Your task to perform on an android device: change notifications settings Image 0: 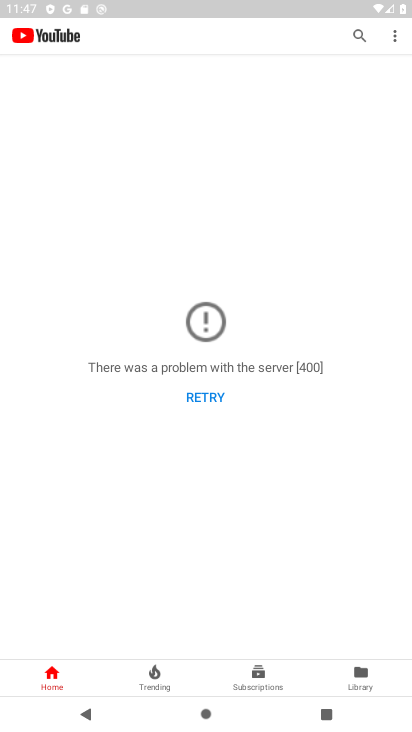
Step 0: press home button
Your task to perform on an android device: change notifications settings Image 1: 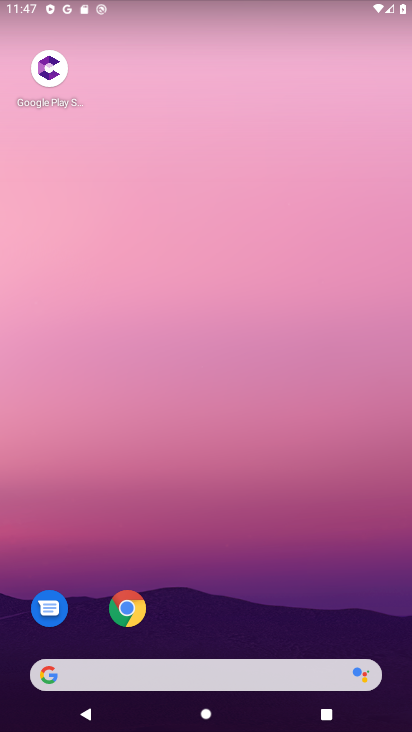
Step 1: drag from (170, 668) to (171, 114)
Your task to perform on an android device: change notifications settings Image 2: 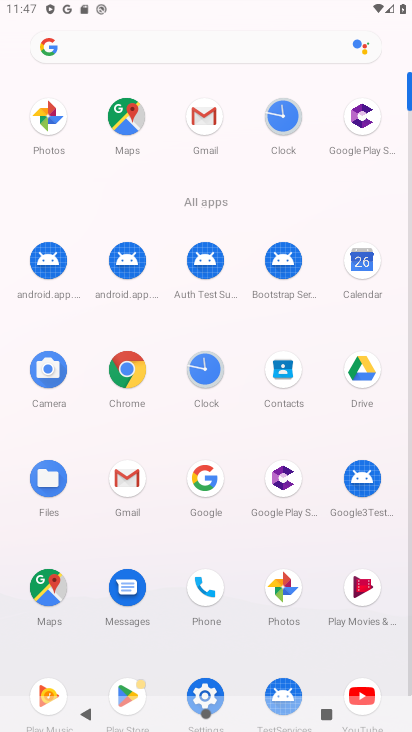
Step 2: drag from (214, 627) to (243, 377)
Your task to perform on an android device: change notifications settings Image 3: 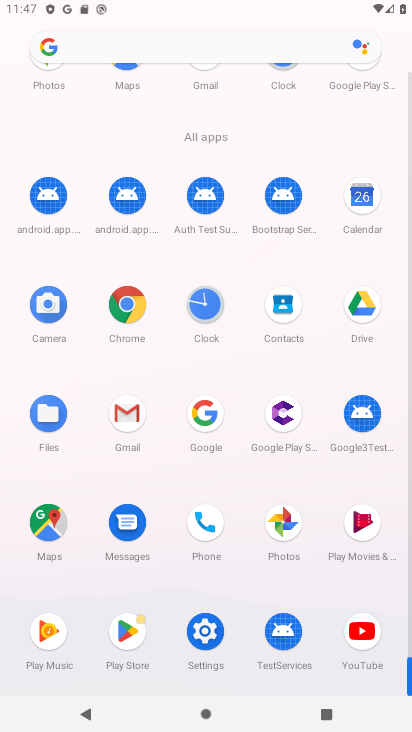
Step 3: click (208, 627)
Your task to perform on an android device: change notifications settings Image 4: 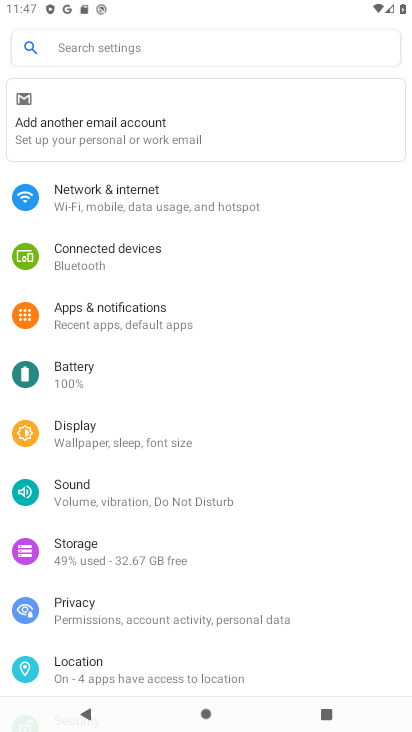
Step 4: click (136, 323)
Your task to perform on an android device: change notifications settings Image 5: 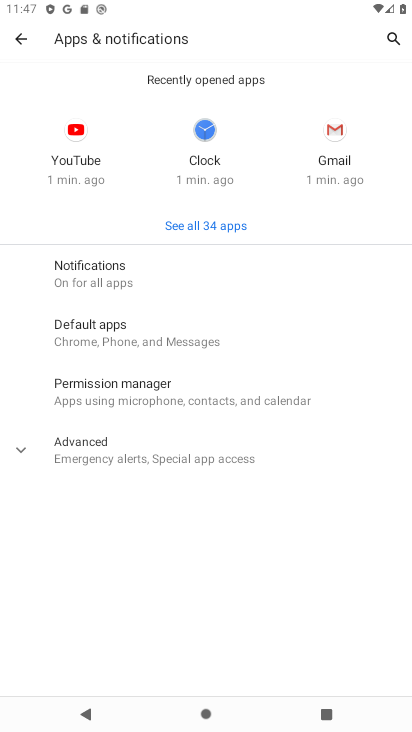
Step 5: click (115, 275)
Your task to perform on an android device: change notifications settings Image 6: 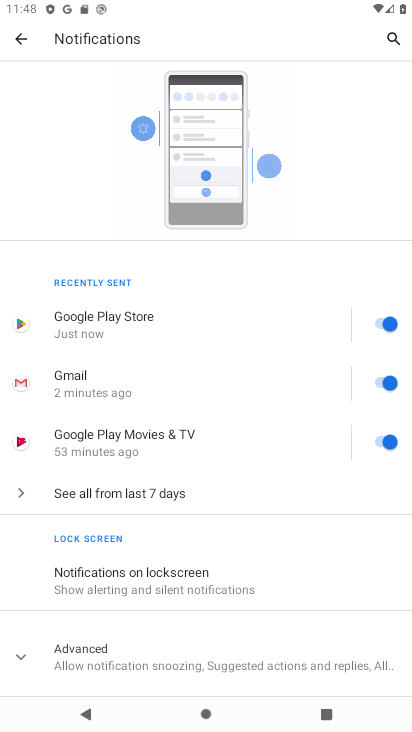
Step 6: click (101, 650)
Your task to perform on an android device: change notifications settings Image 7: 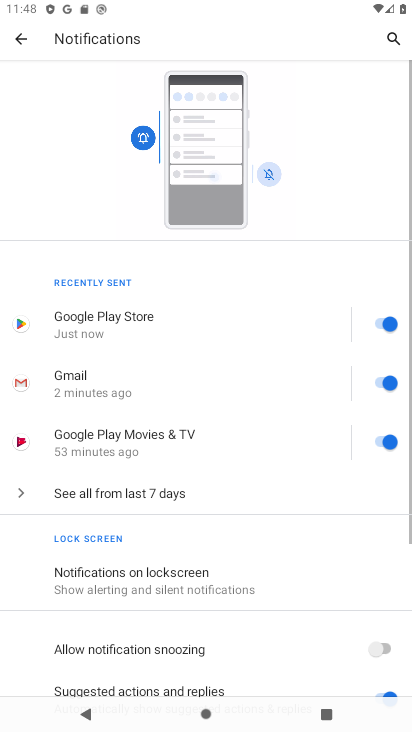
Step 7: drag from (146, 622) to (208, 378)
Your task to perform on an android device: change notifications settings Image 8: 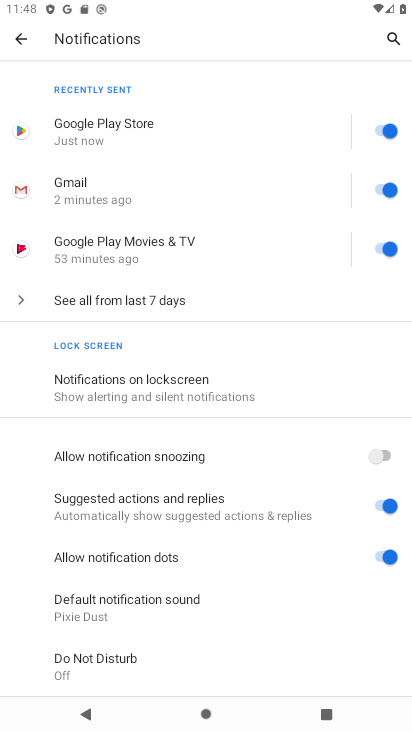
Step 8: click (379, 565)
Your task to perform on an android device: change notifications settings Image 9: 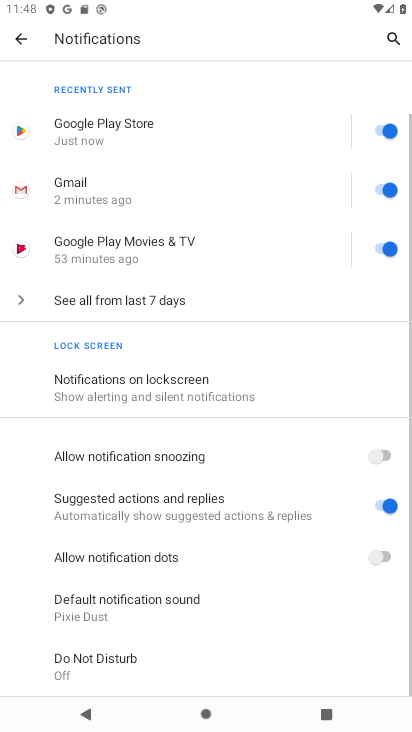
Step 9: task complete